Your task to perform on an android device: turn off translation in the chrome app Image 0: 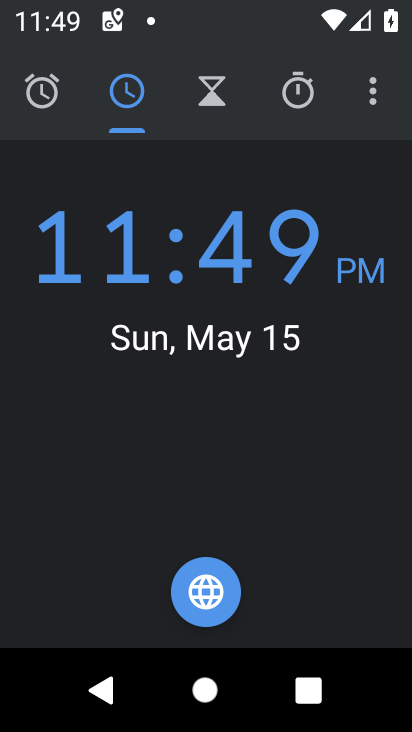
Step 0: press home button
Your task to perform on an android device: turn off translation in the chrome app Image 1: 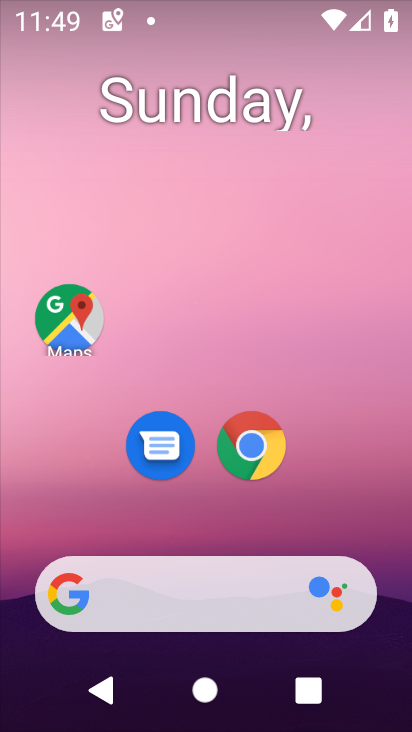
Step 1: click (263, 469)
Your task to perform on an android device: turn off translation in the chrome app Image 2: 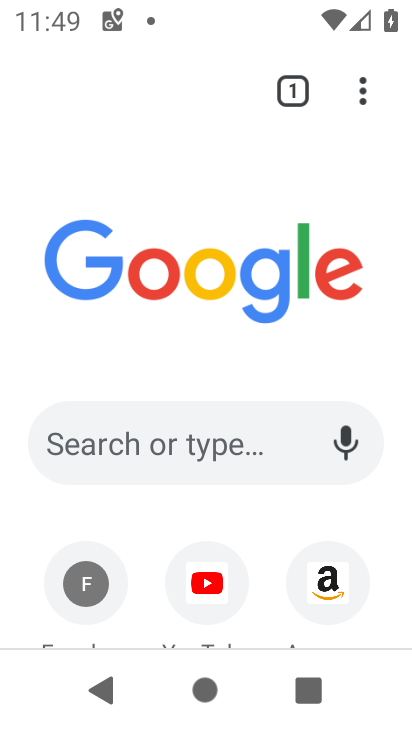
Step 2: click (365, 92)
Your task to perform on an android device: turn off translation in the chrome app Image 3: 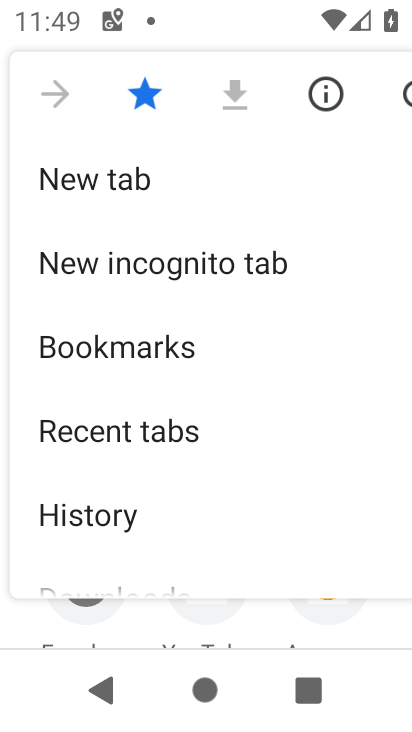
Step 3: drag from (227, 497) to (186, 195)
Your task to perform on an android device: turn off translation in the chrome app Image 4: 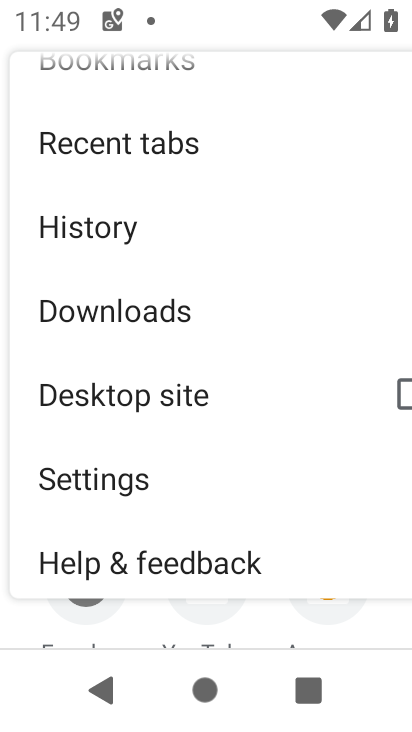
Step 4: click (103, 491)
Your task to perform on an android device: turn off translation in the chrome app Image 5: 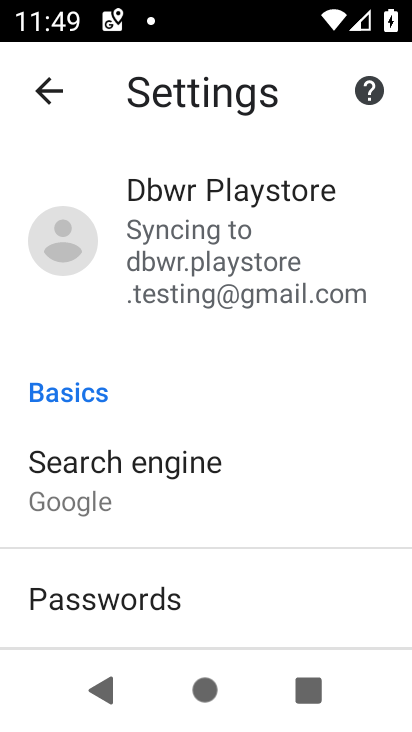
Step 5: drag from (215, 604) to (221, 195)
Your task to perform on an android device: turn off translation in the chrome app Image 6: 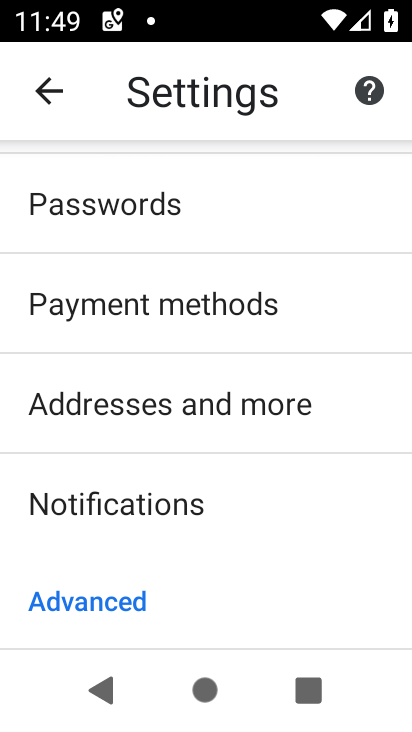
Step 6: drag from (227, 565) to (143, 152)
Your task to perform on an android device: turn off translation in the chrome app Image 7: 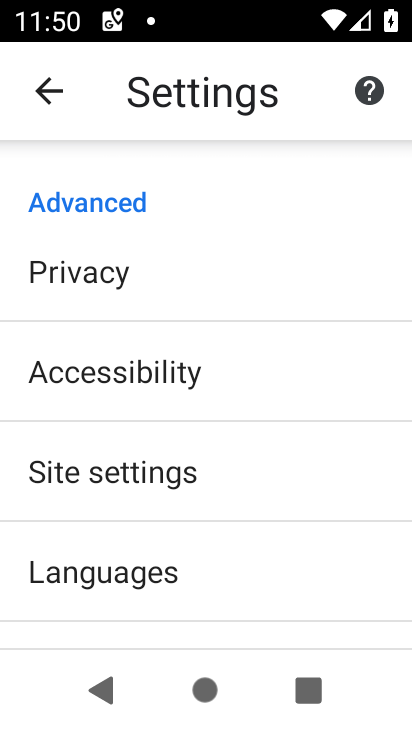
Step 7: drag from (190, 561) to (132, 180)
Your task to perform on an android device: turn off translation in the chrome app Image 8: 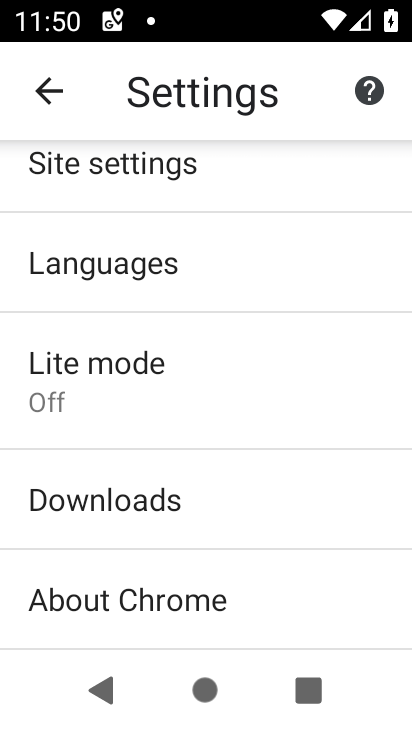
Step 8: click (120, 256)
Your task to perform on an android device: turn off translation in the chrome app Image 9: 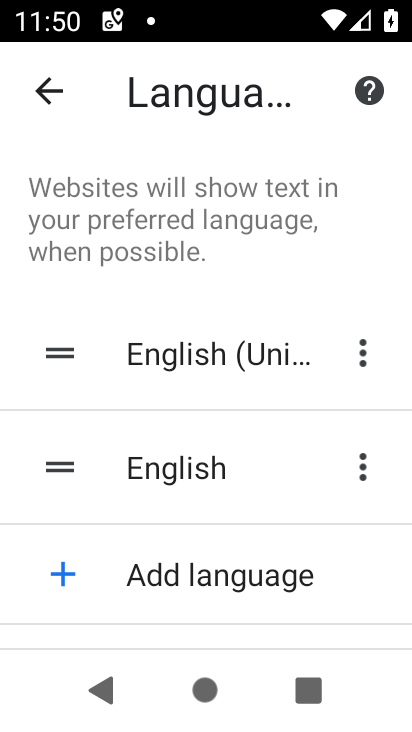
Step 9: drag from (301, 470) to (248, 182)
Your task to perform on an android device: turn off translation in the chrome app Image 10: 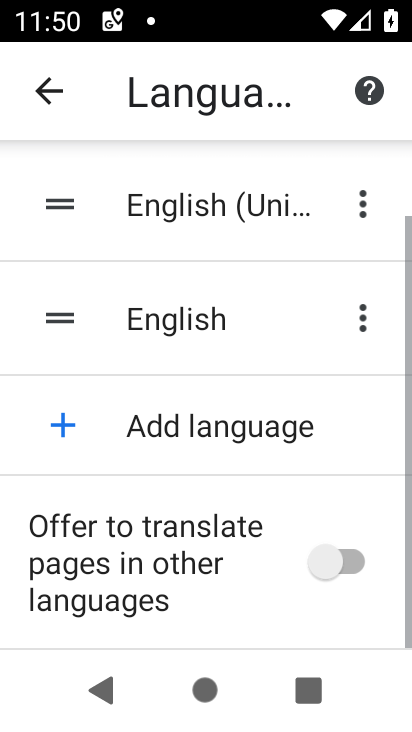
Step 10: click (248, 97)
Your task to perform on an android device: turn off translation in the chrome app Image 11: 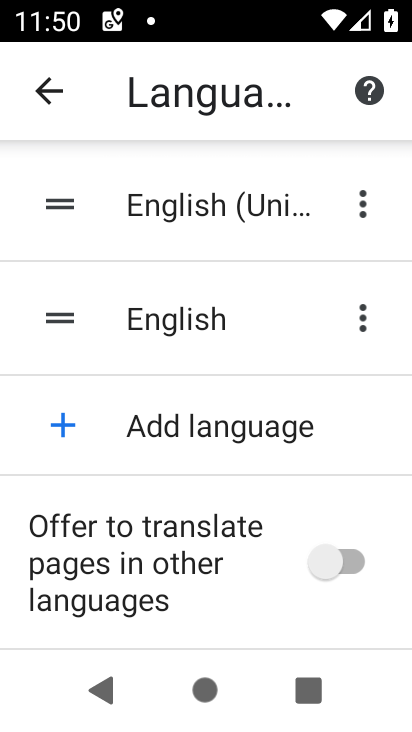
Step 11: task complete